Your task to perform on an android device: Go to accessibility settings Image 0: 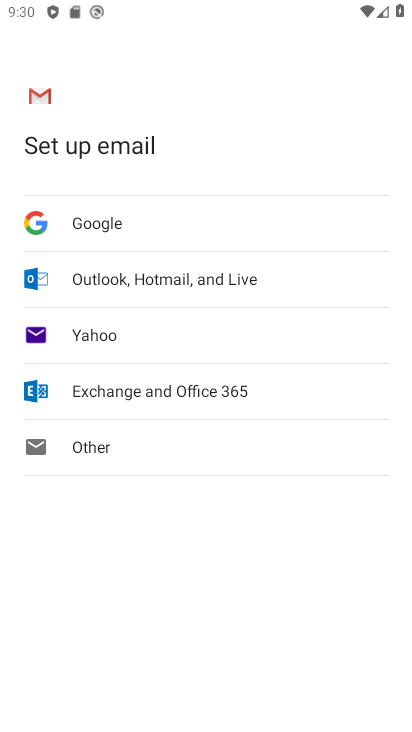
Step 0: press home button
Your task to perform on an android device: Go to accessibility settings Image 1: 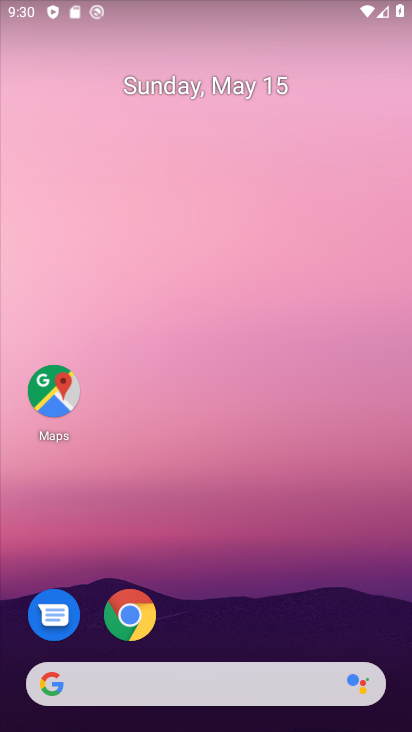
Step 1: drag from (236, 643) to (352, 141)
Your task to perform on an android device: Go to accessibility settings Image 2: 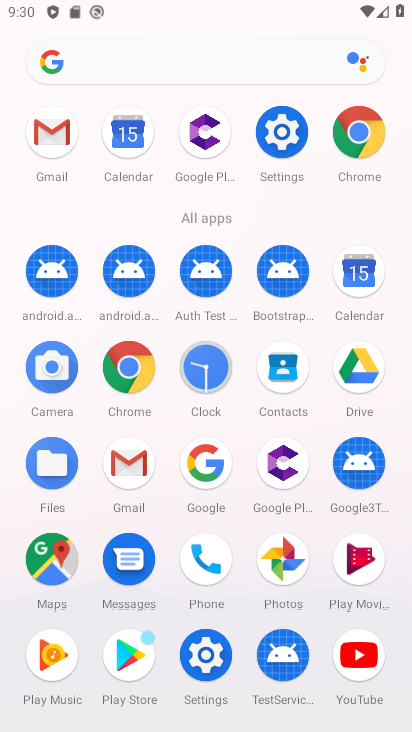
Step 2: click (213, 664)
Your task to perform on an android device: Go to accessibility settings Image 3: 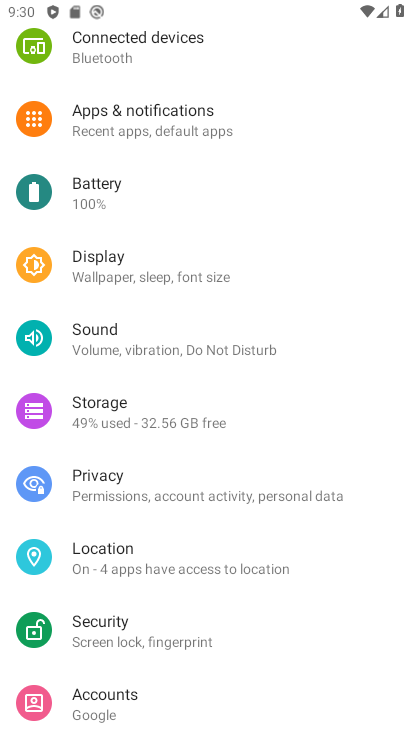
Step 3: drag from (170, 678) to (274, 231)
Your task to perform on an android device: Go to accessibility settings Image 4: 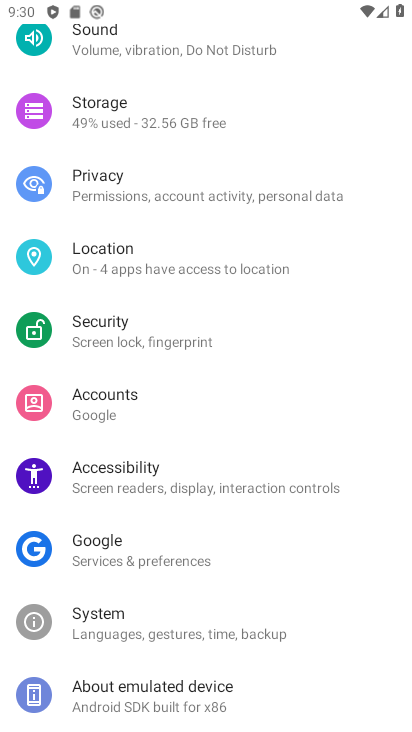
Step 4: click (145, 486)
Your task to perform on an android device: Go to accessibility settings Image 5: 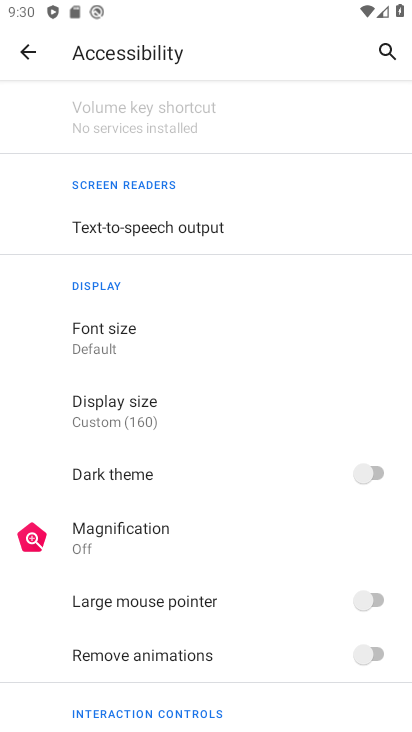
Step 5: task complete